Your task to perform on an android device: What's the weather going to be tomorrow? Image 0: 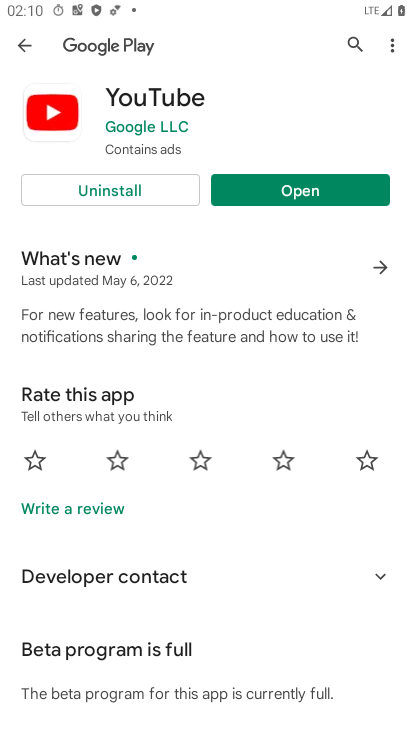
Step 0: press home button
Your task to perform on an android device: What's the weather going to be tomorrow? Image 1: 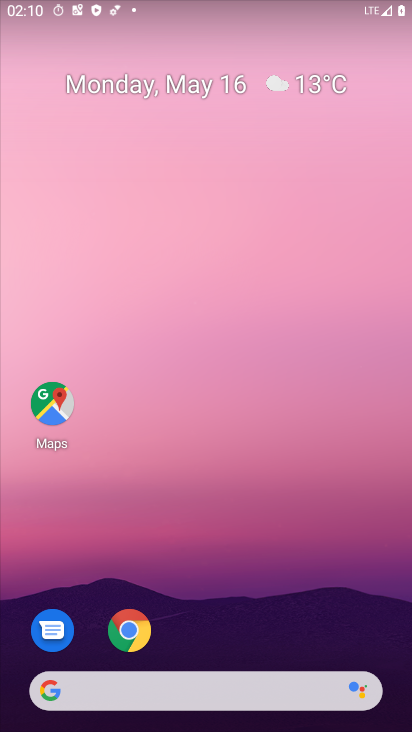
Step 1: drag from (351, 633) to (345, 196)
Your task to perform on an android device: What's the weather going to be tomorrow? Image 2: 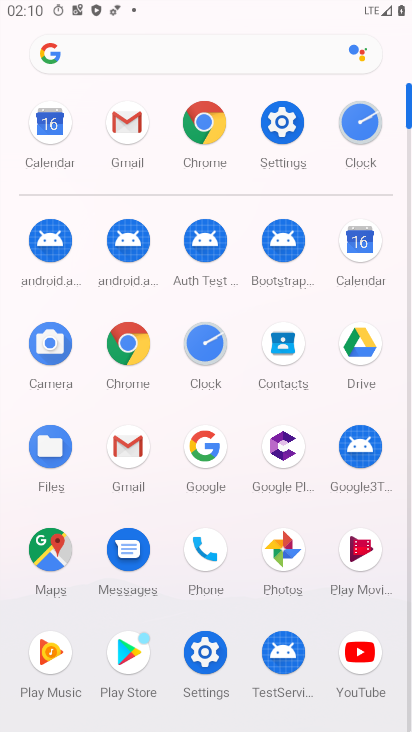
Step 2: click (123, 354)
Your task to perform on an android device: What's the weather going to be tomorrow? Image 3: 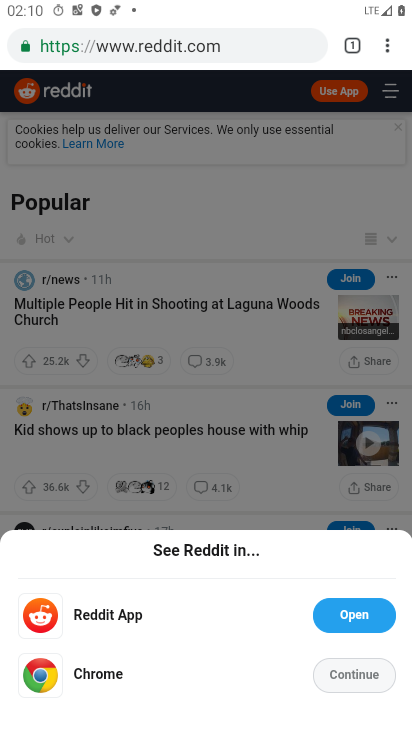
Step 3: click (168, 40)
Your task to perform on an android device: What's the weather going to be tomorrow? Image 4: 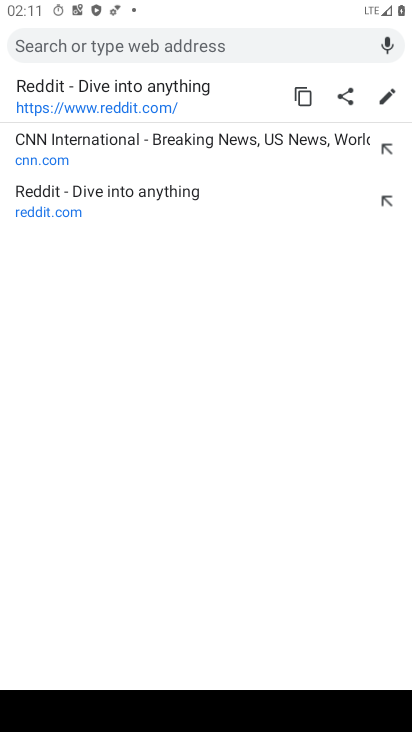
Step 4: type "what's the weather going to be tomorrow"
Your task to perform on an android device: What's the weather going to be tomorrow? Image 5: 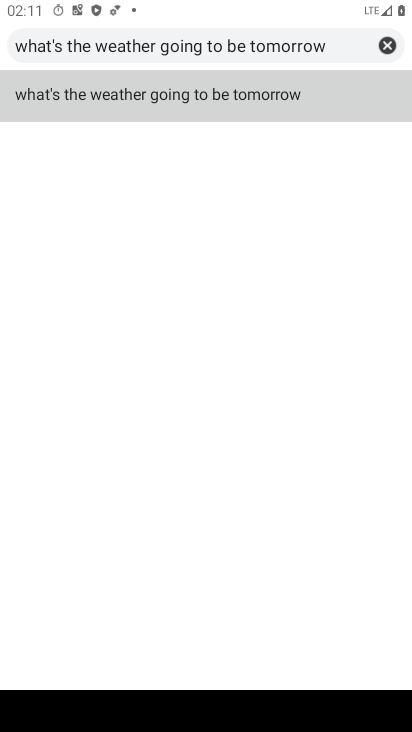
Step 5: click (173, 48)
Your task to perform on an android device: What's the weather going to be tomorrow? Image 6: 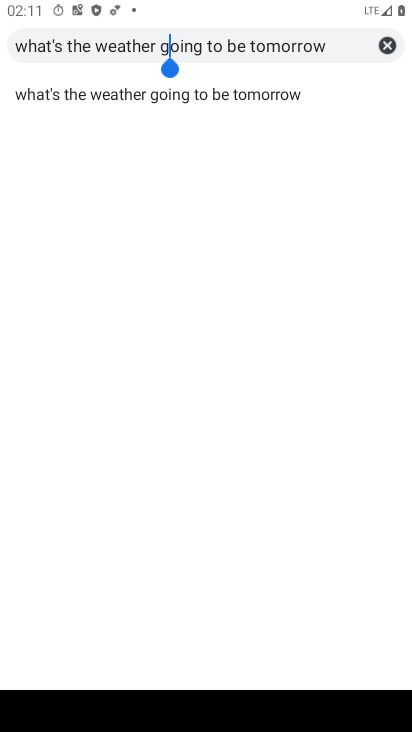
Step 6: click (186, 100)
Your task to perform on an android device: What's the weather going to be tomorrow? Image 7: 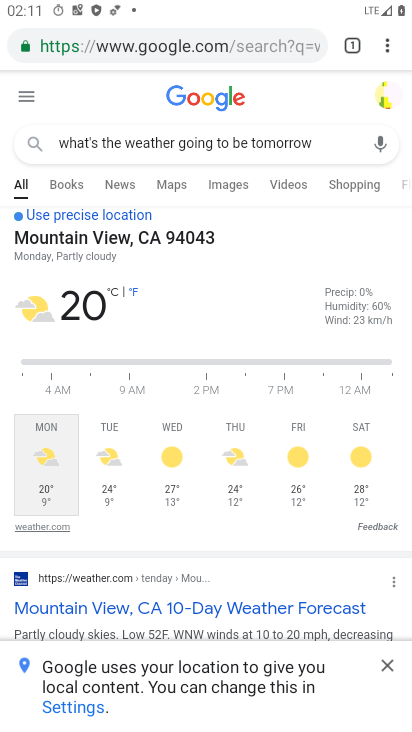
Step 7: task complete